Your task to perform on an android device: Open the map Image 0: 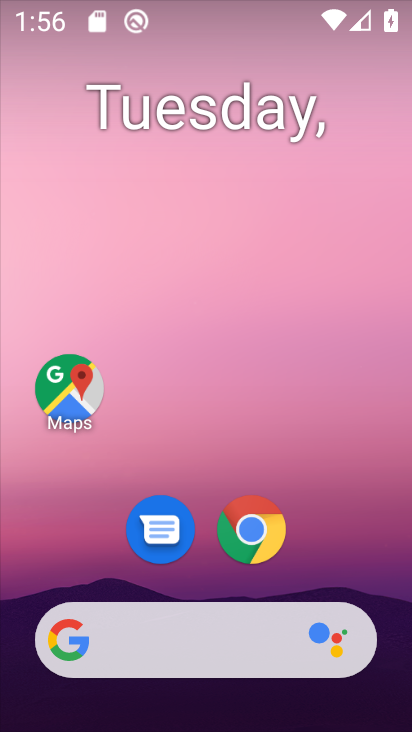
Step 0: click (65, 395)
Your task to perform on an android device: Open the map Image 1: 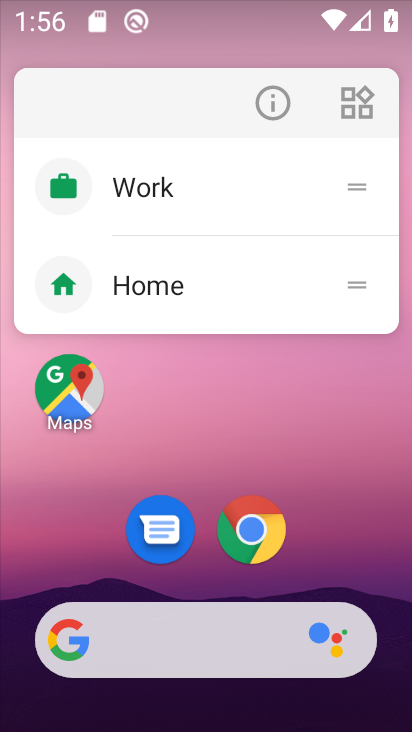
Step 1: click (65, 395)
Your task to perform on an android device: Open the map Image 2: 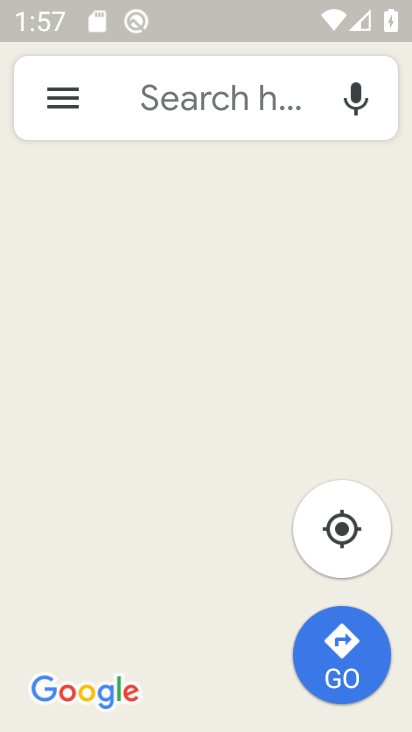
Step 2: task complete